Your task to perform on an android device: Open accessibility settings Image 0: 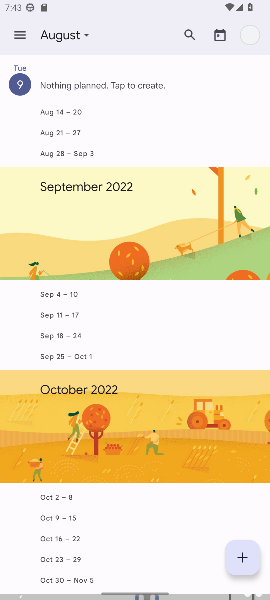
Step 0: press home button
Your task to perform on an android device: Open accessibility settings Image 1: 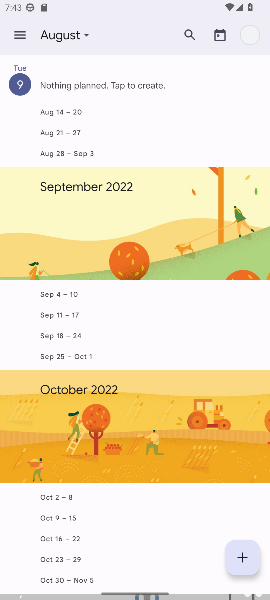
Step 1: press home button
Your task to perform on an android device: Open accessibility settings Image 2: 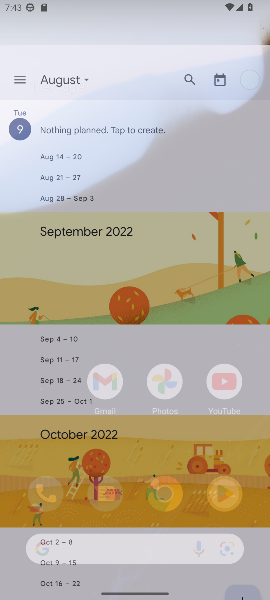
Step 2: press home button
Your task to perform on an android device: Open accessibility settings Image 3: 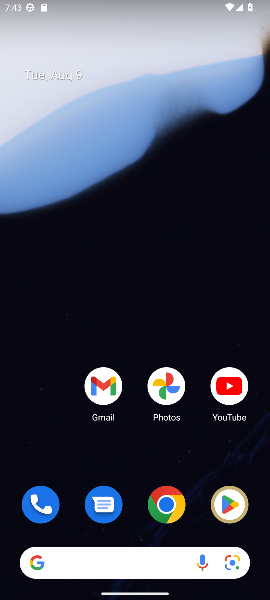
Step 3: drag from (190, 459) to (265, 134)
Your task to perform on an android device: Open accessibility settings Image 4: 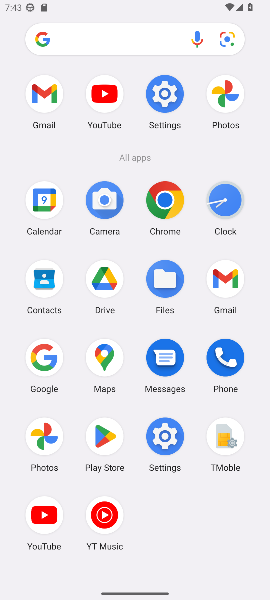
Step 4: click (168, 89)
Your task to perform on an android device: Open accessibility settings Image 5: 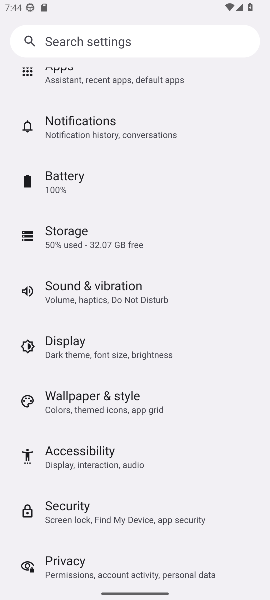
Step 5: drag from (119, 118) to (141, 10)
Your task to perform on an android device: Open accessibility settings Image 6: 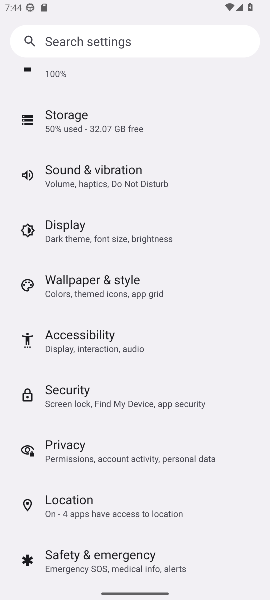
Step 6: click (62, 335)
Your task to perform on an android device: Open accessibility settings Image 7: 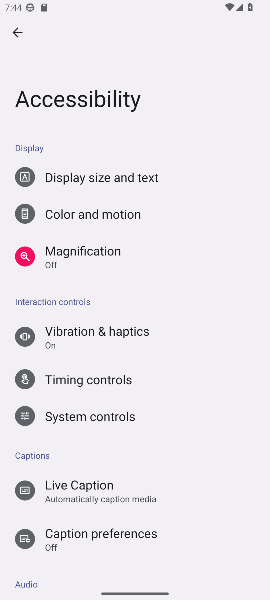
Step 7: task complete